Your task to perform on an android device: turn notification dots on Image 0: 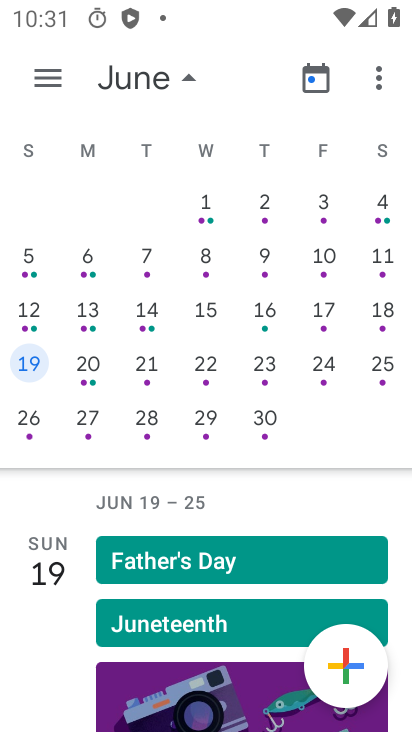
Step 0: press home button
Your task to perform on an android device: turn notification dots on Image 1: 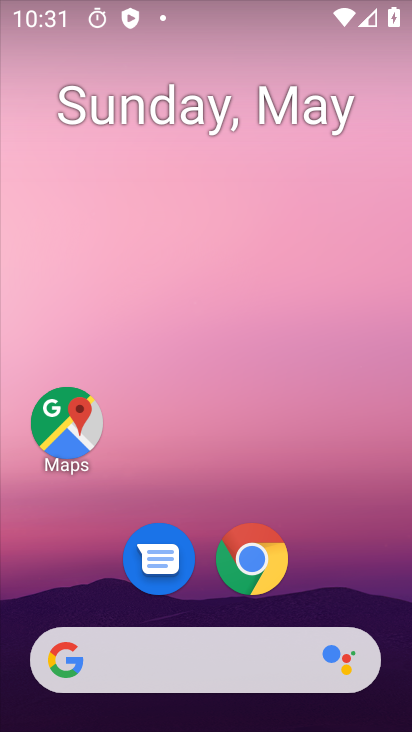
Step 1: drag from (318, 566) to (309, 187)
Your task to perform on an android device: turn notification dots on Image 2: 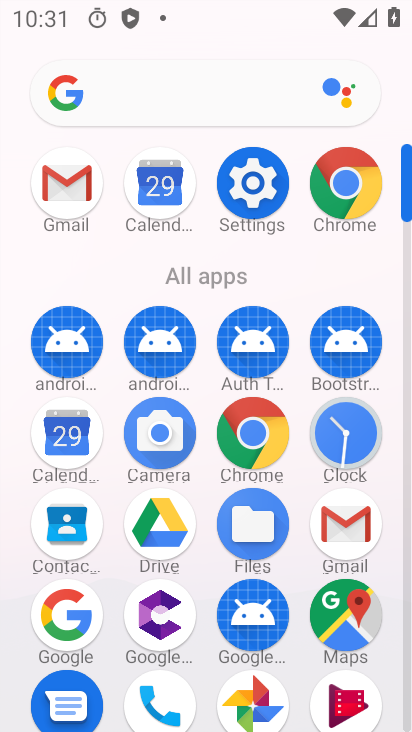
Step 2: click (266, 212)
Your task to perform on an android device: turn notification dots on Image 3: 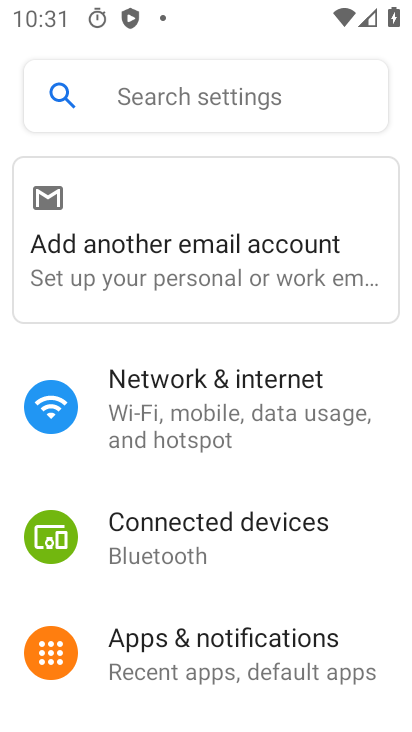
Step 3: click (264, 646)
Your task to perform on an android device: turn notification dots on Image 4: 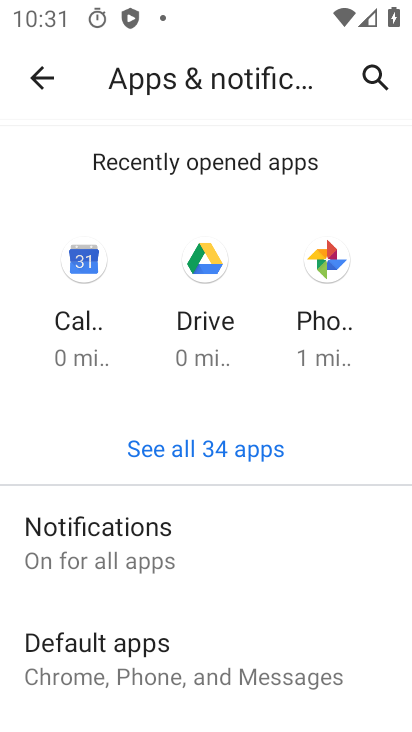
Step 4: click (207, 549)
Your task to perform on an android device: turn notification dots on Image 5: 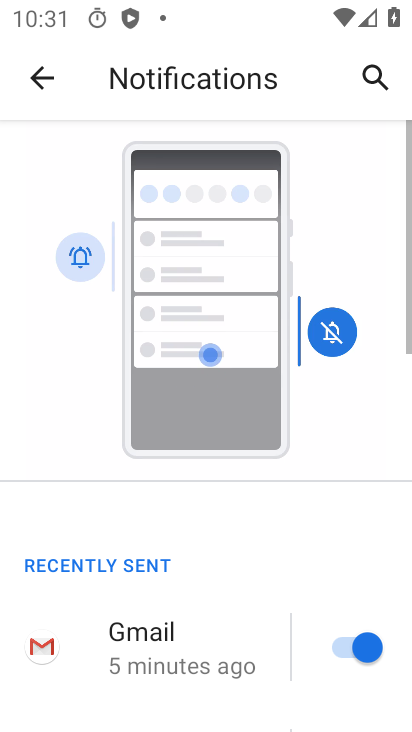
Step 5: drag from (246, 633) to (305, 287)
Your task to perform on an android device: turn notification dots on Image 6: 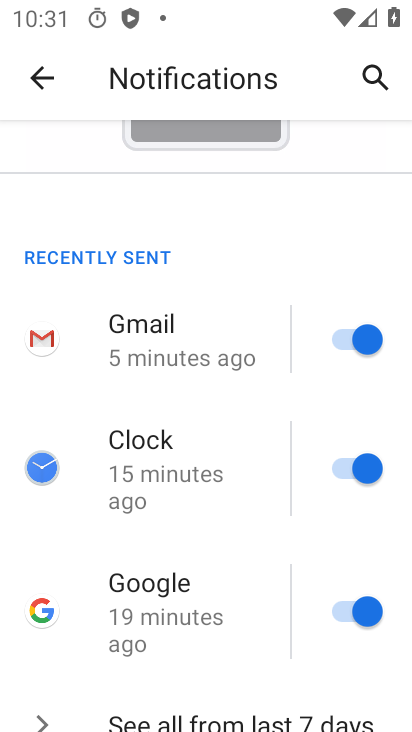
Step 6: drag from (252, 661) to (256, 316)
Your task to perform on an android device: turn notification dots on Image 7: 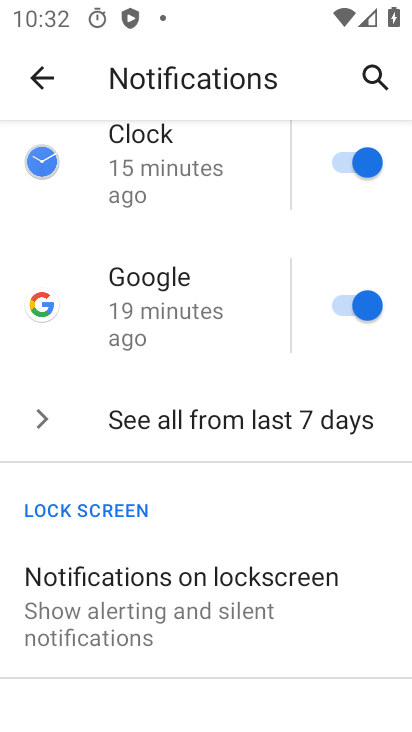
Step 7: drag from (189, 679) to (234, 299)
Your task to perform on an android device: turn notification dots on Image 8: 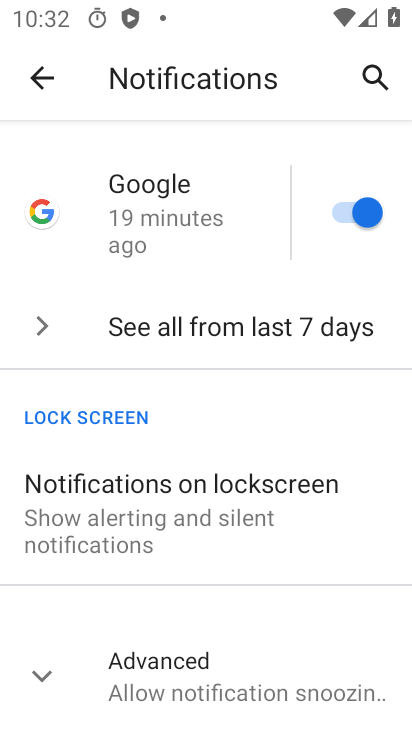
Step 8: click (54, 676)
Your task to perform on an android device: turn notification dots on Image 9: 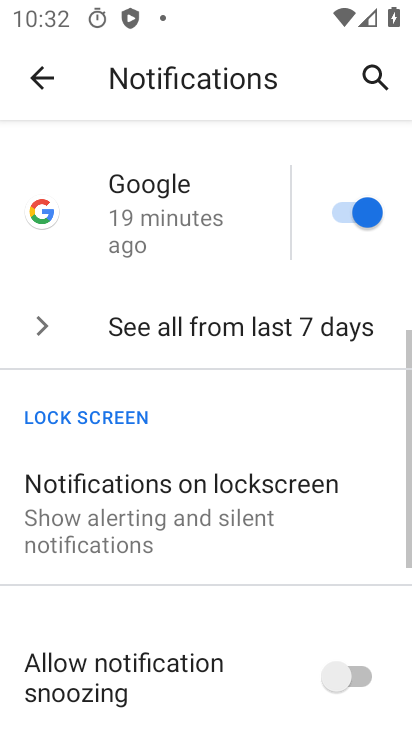
Step 9: task complete